Your task to perform on an android device: move an email to a new category in the gmail app Image 0: 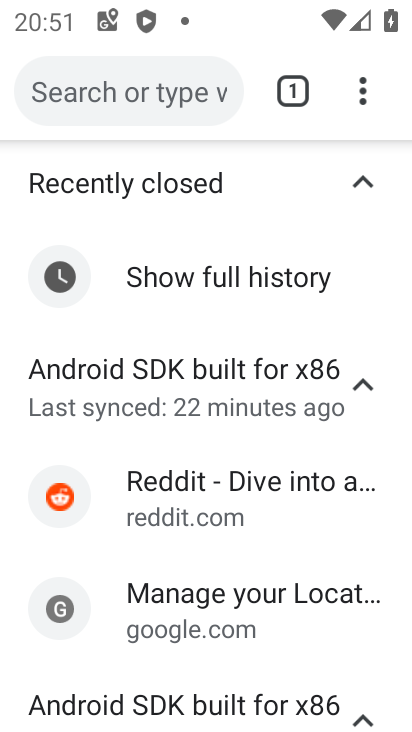
Step 0: press home button
Your task to perform on an android device: move an email to a new category in the gmail app Image 1: 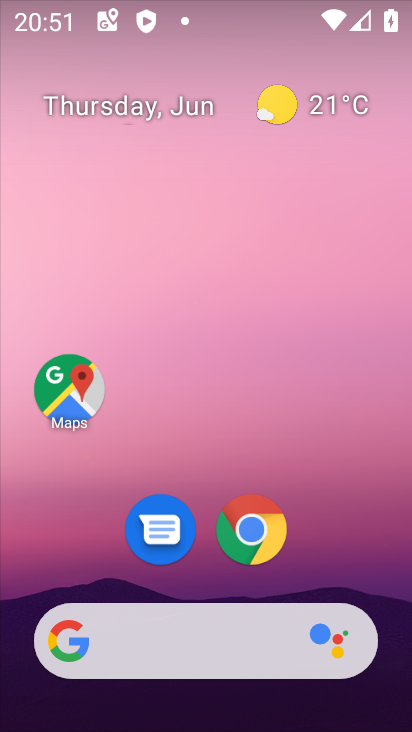
Step 1: drag from (325, 511) to (175, 37)
Your task to perform on an android device: move an email to a new category in the gmail app Image 2: 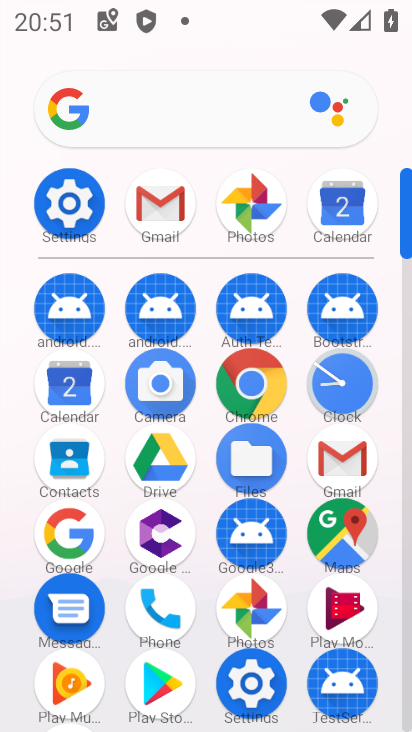
Step 2: click (158, 203)
Your task to perform on an android device: move an email to a new category in the gmail app Image 3: 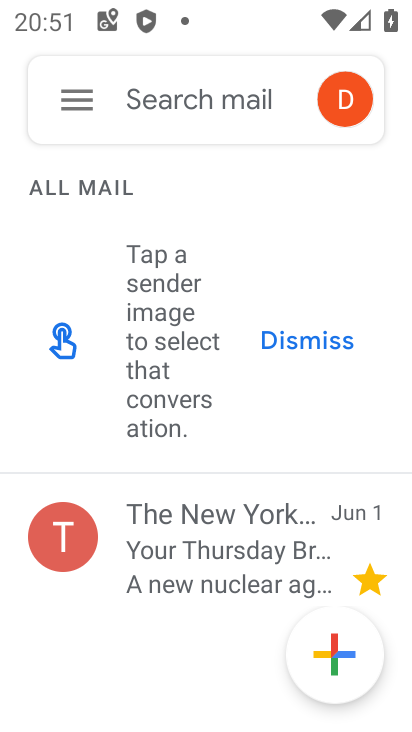
Step 3: click (200, 518)
Your task to perform on an android device: move an email to a new category in the gmail app Image 4: 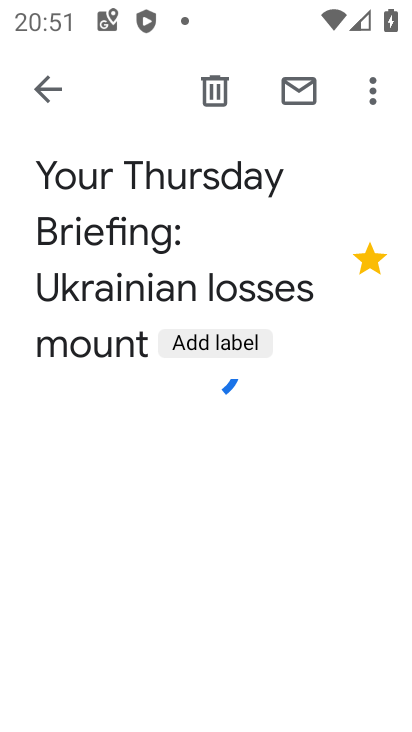
Step 4: click (372, 85)
Your task to perform on an android device: move an email to a new category in the gmail app Image 5: 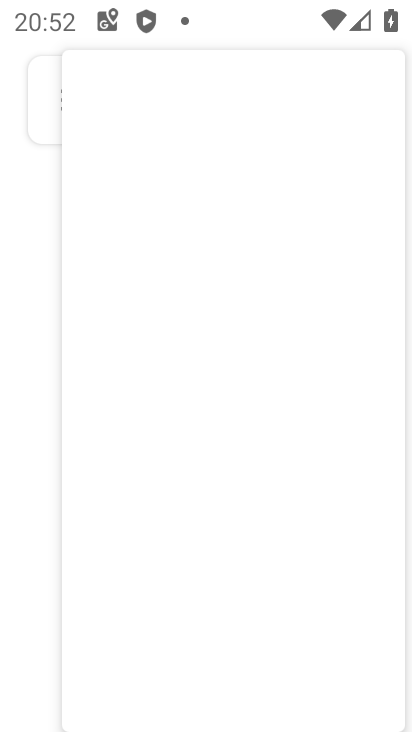
Step 5: click (41, 253)
Your task to perform on an android device: move an email to a new category in the gmail app Image 6: 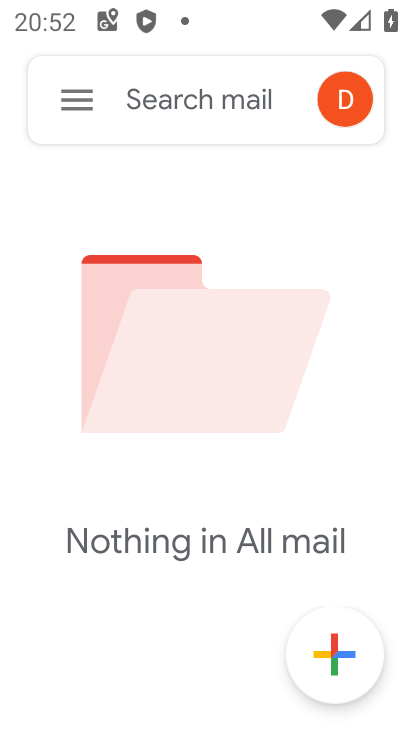
Step 6: task complete